Your task to perform on an android device: Show me productivity apps on the Play Store Image 0: 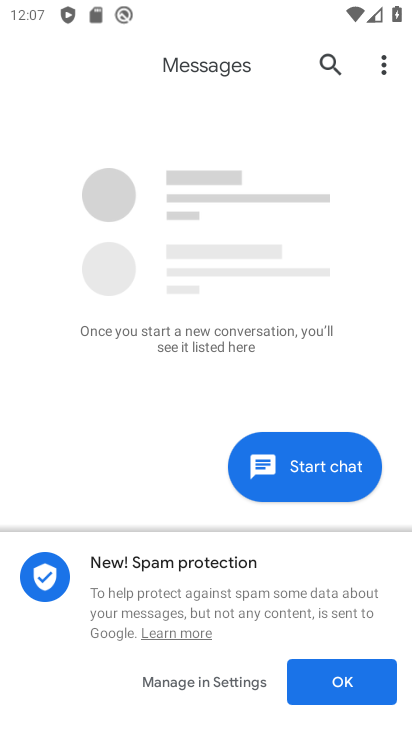
Step 0: press home button
Your task to perform on an android device: Show me productivity apps on the Play Store Image 1: 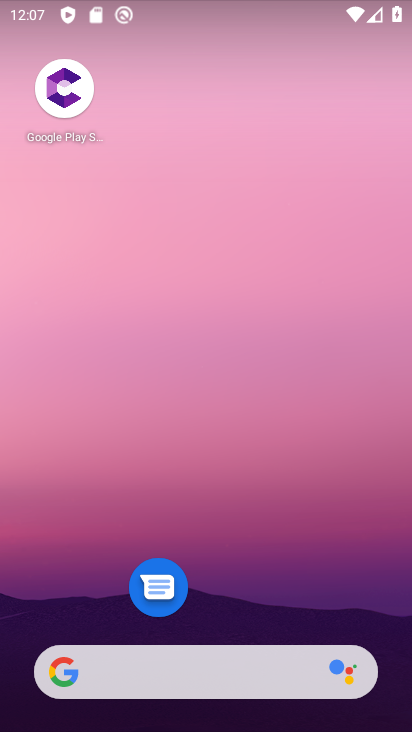
Step 1: drag from (250, 576) to (360, 27)
Your task to perform on an android device: Show me productivity apps on the Play Store Image 2: 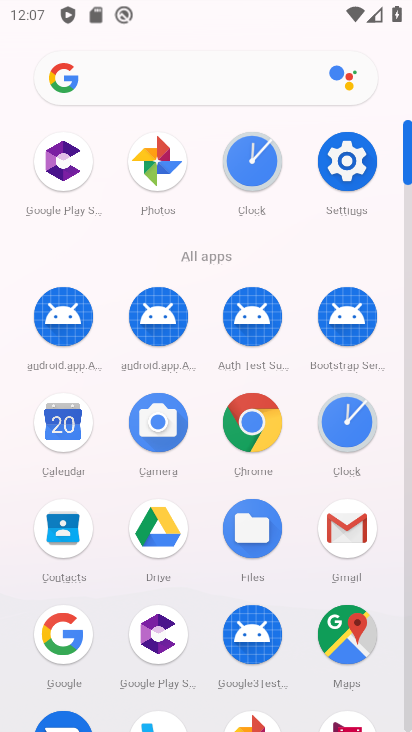
Step 2: drag from (267, 353) to (340, 125)
Your task to perform on an android device: Show me productivity apps on the Play Store Image 3: 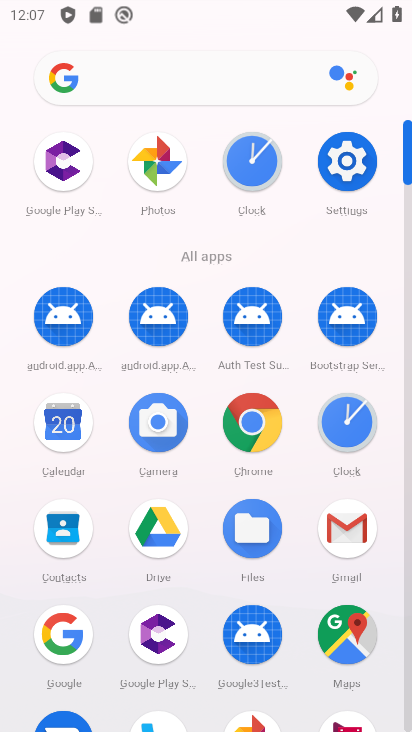
Step 3: drag from (218, 612) to (262, 239)
Your task to perform on an android device: Show me productivity apps on the Play Store Image 4: 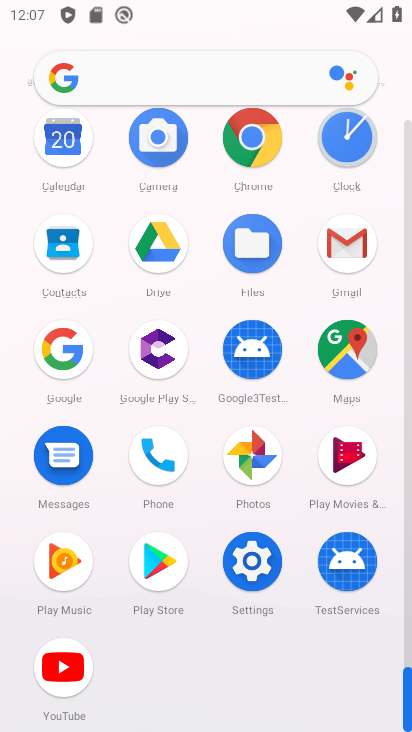
Step 4: click (154, 572)
Your task to perform on an android device: Show me productivity apps on the Play Store Image 5: 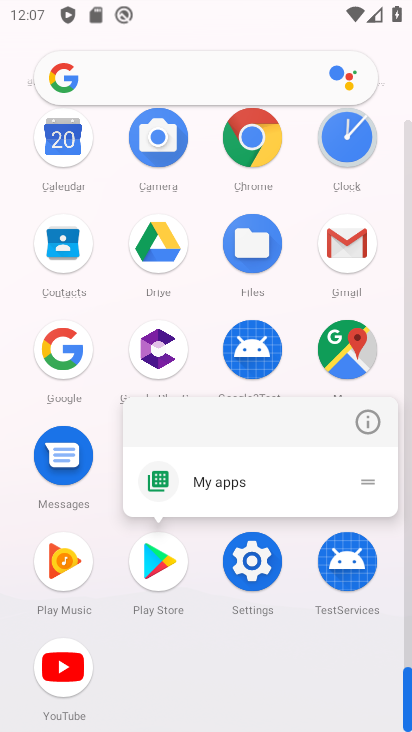
Step 5: click (156, 566)
Your task to perform on an android device: Show me productivity apps on the Play Store Image 6: 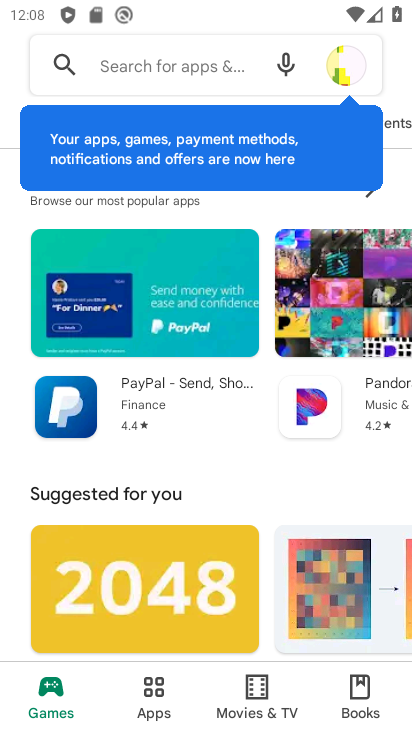
Step 6: click (162, 678)
Your task to perform on an android device: Show me productivity apps on the Play Store Image 7: 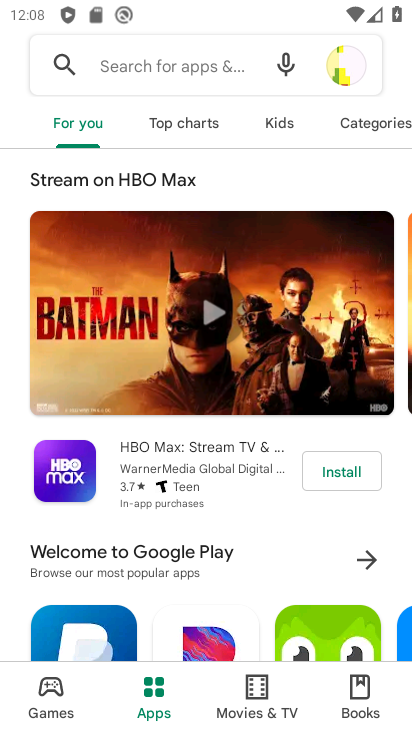
Step 7: click (362, 120)
Your task to perform on an android device: Show me productivity apps on the Play Store Image 8: 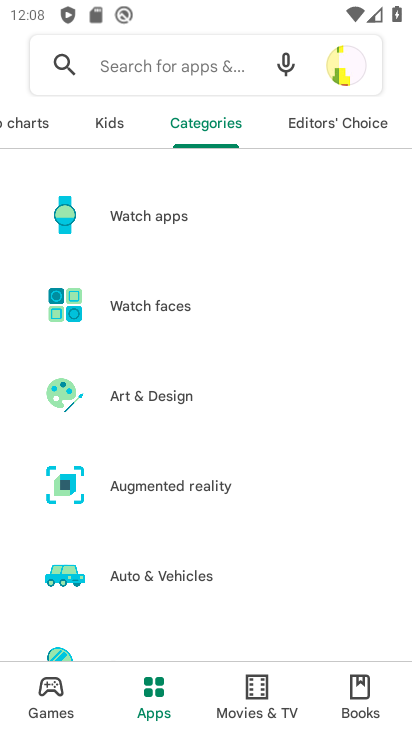
Step 8: click (365, 119)
Your task to perform on an android device: Show me productivity apps on the Play Store Image 9: 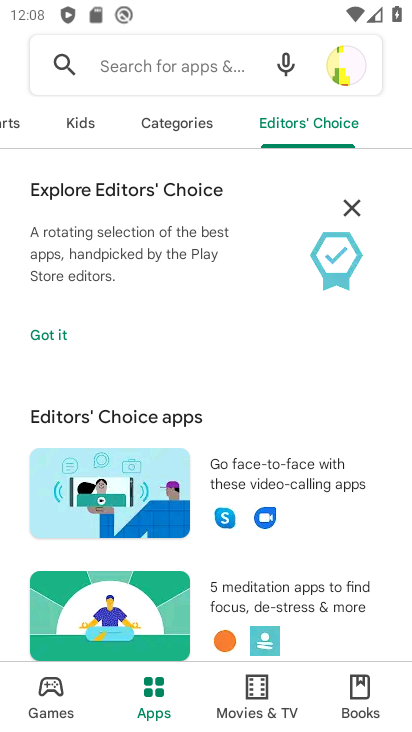
Step 9: click (150, 126)
Your task to perform on an android device: Show me productivity apps on the Play Store Image 10: 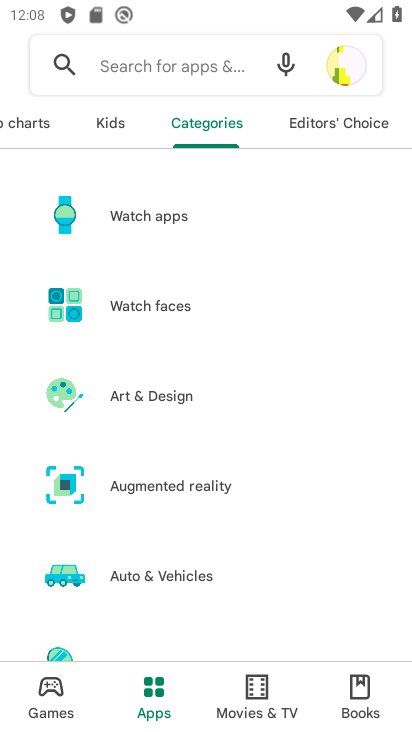
Step 10: drag from (139, 609) to (411, 480)
Your task to perform on an android device: Show me productivity apps on the Play Store Image 11: 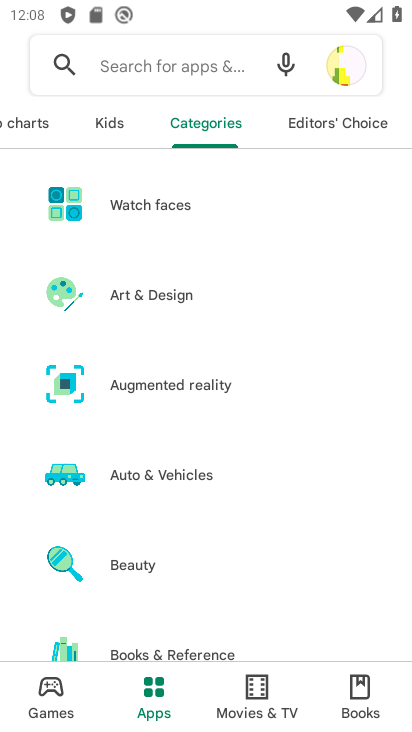
Step 11: drag from (183, 630) to (396, 16)
Your task to perform on an android device: Show me productivity apps on the Play Store Image 12: 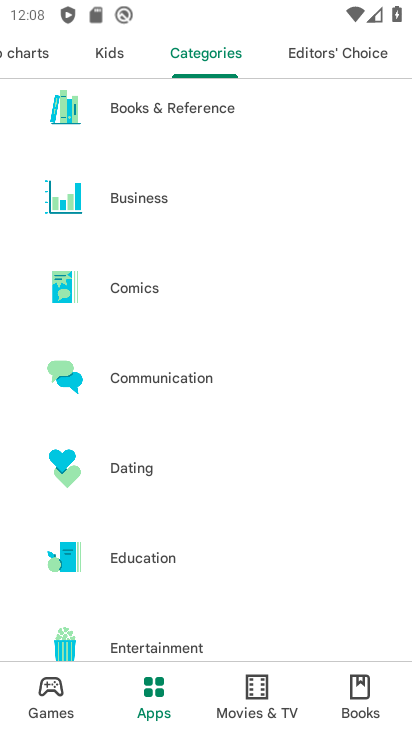
Step 12: drag from (165, 612) to (403, 181)
Your task to perform on an android device: Show me productivity apps on the Play Store Image 13: 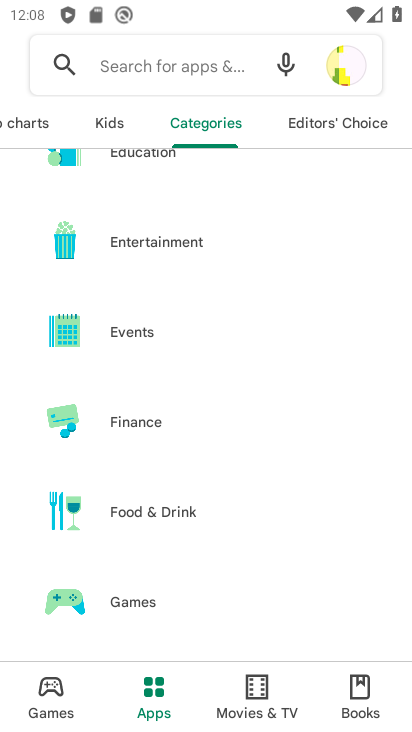
Step 13: drag from (212, 609) to (408, 497)
Your task to perform on an android device: Show me productivity apps on the Play Store Image 14: 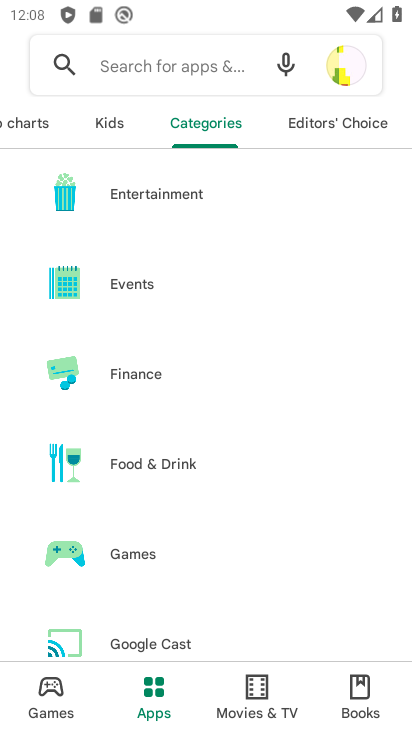
Step 14: drag from (185, 649) to (284, 51)
Your task to perform on an android device: Show me productivity apps on the Play Store Image 15: 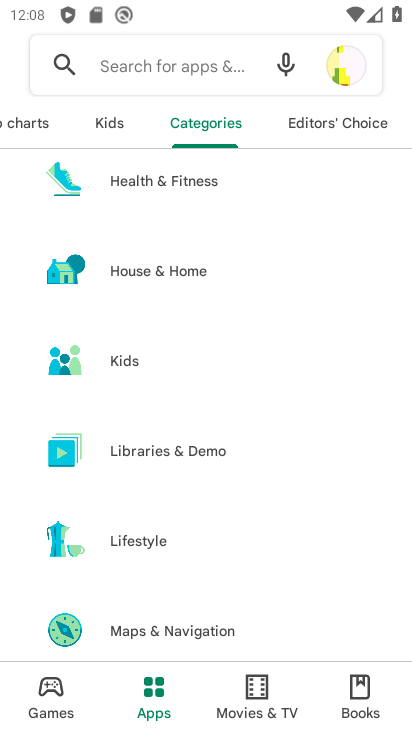
Step 15: drag from (141, 614) to (307, 10)
Your task to perform on an android device: Show me productivity apps on the Play Store Image 16: 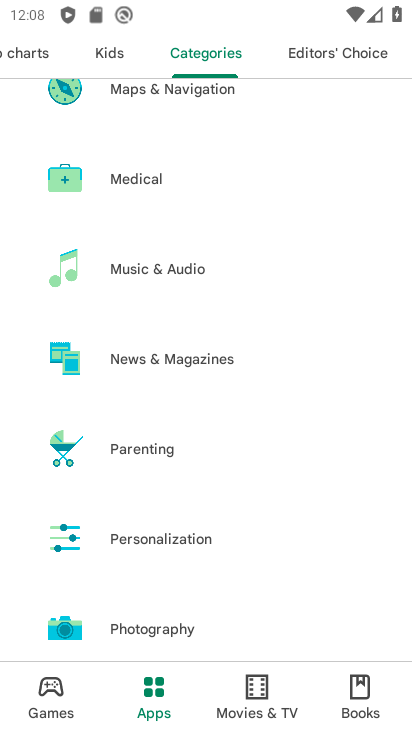
Step 16: drag from (165, 581) to (260, 121)
Your task to perform on an android device: Show me productivity apps on the Play Store Image 17: 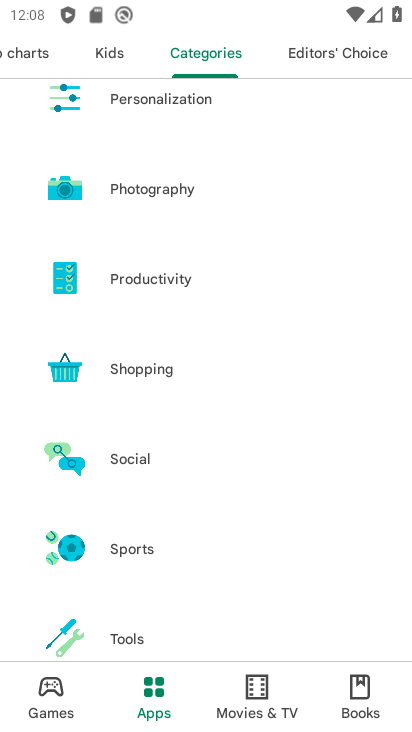
Step 17: click (176, 274)
Your task to perform on an android device: Show me productivity apps on the Play Store Image 18: 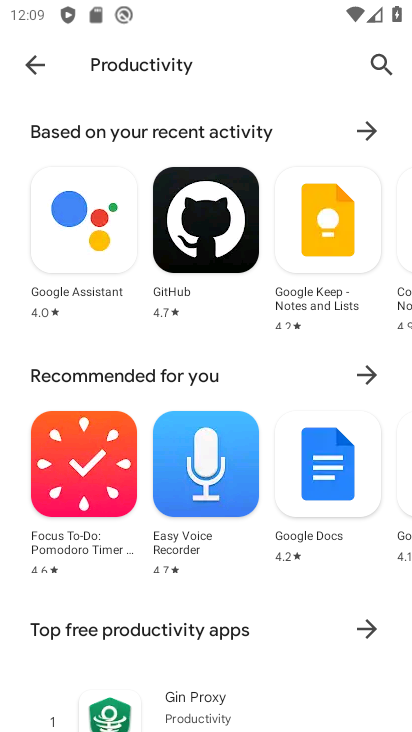
Step 18: task complete